Your task to perform on an android device: Go to ESPN.com Image 0: 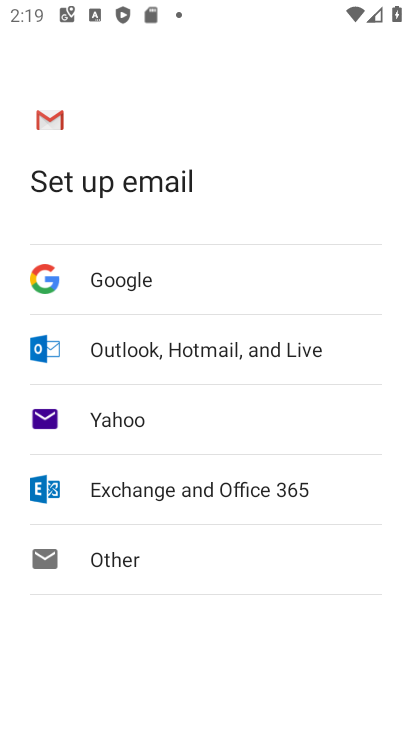
Step 0: click (186, 656)
Your task to perform on an android device: Go to ESPN.com Image 1: 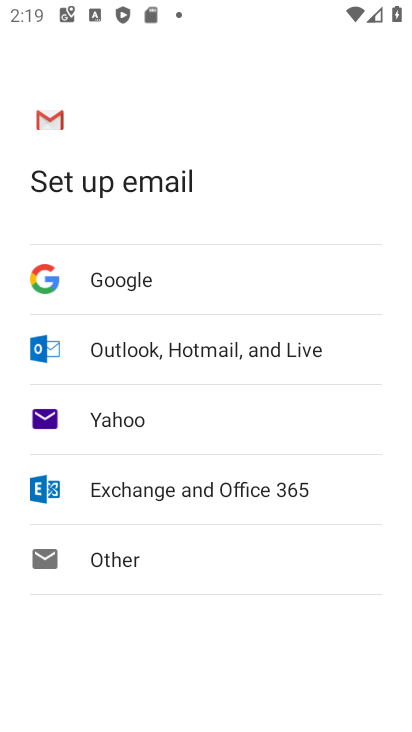
Step 1: press home button
Your task to perform on an android device: Go to ESPN.com Image 2: 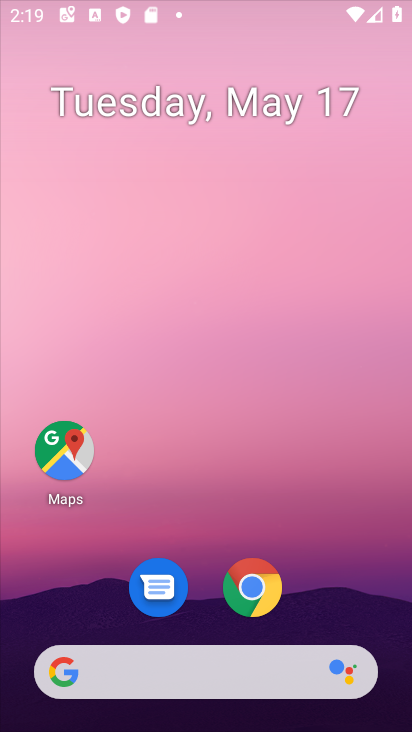
Step 2: drag from (215, 655) to (317, 185)
Your task to perform on an android device: Go to ESPN.com Image 3: 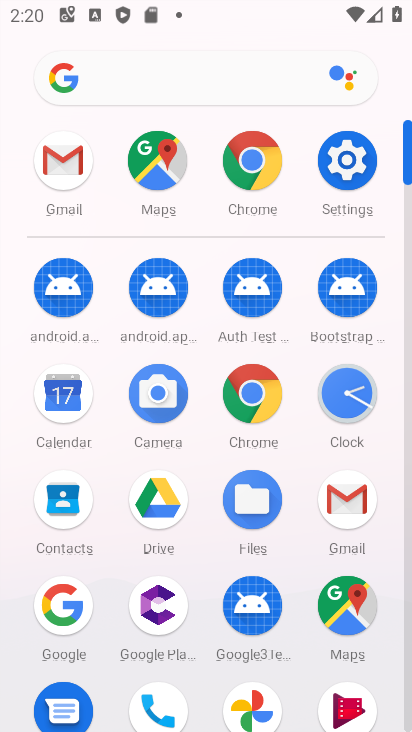
Step 3: click (195, 79)
Your task to perform on an android device: Go to ESPN.com Image 4: 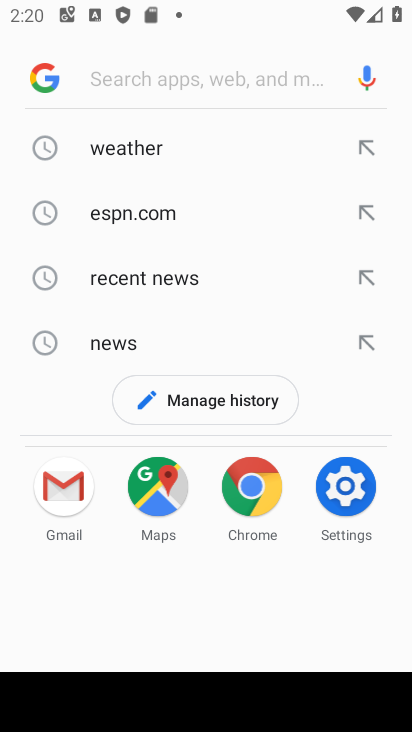
Step 4: type "espn.com"
Your task to perform on an android device: Go to ESPN.com Image 5: 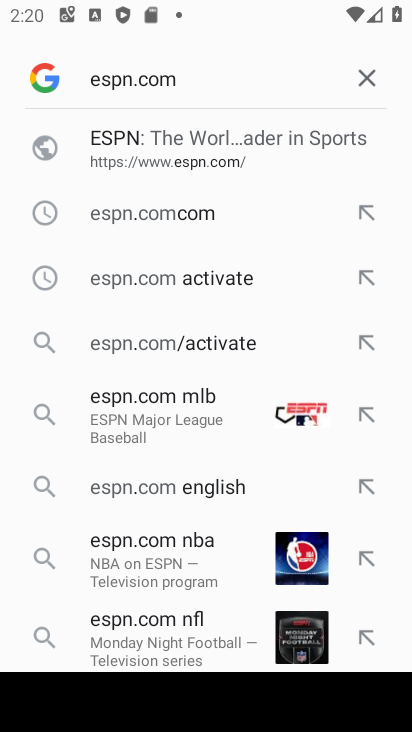
Step 5: click (207, 181)
Your task to perform on an android device: Go to ESPN.com Image 6: 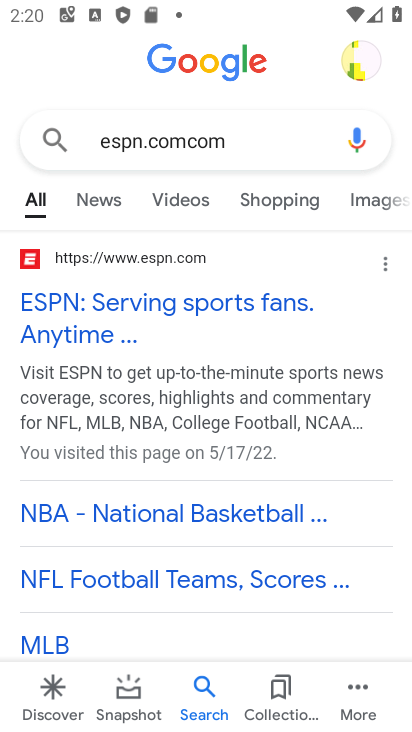
Step 6: click (44, 337)
Your task to perform on an android device: Go to ESPN.com Image 7: 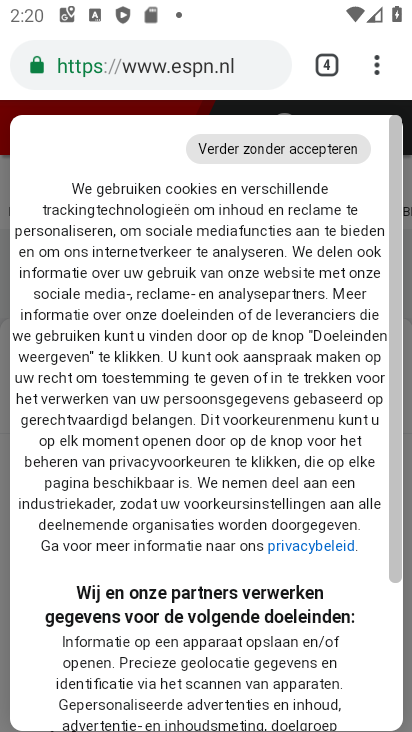
Step 7: task complete